Your task to perform on an android device: What's the weather going to be tomorrow? Image 0: 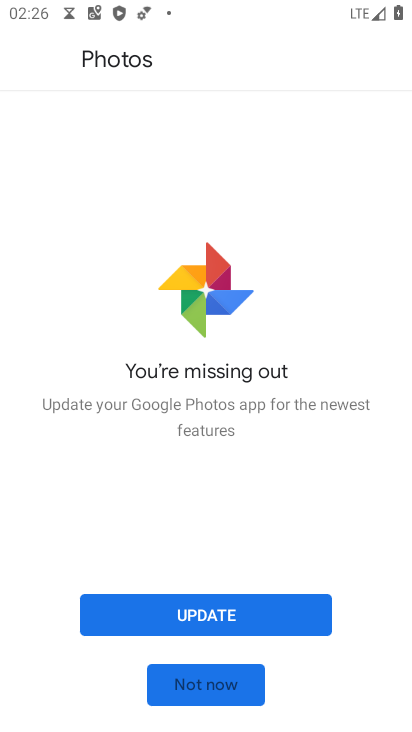
Step 0: press home button
Your task to perform on an android device: What's the weather going to be tomorrow? Image 1: 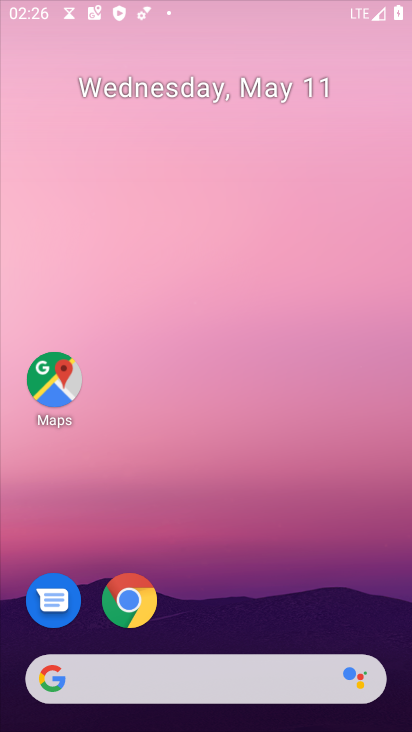
Step 1: drag from (12, 524) to (70, 330)
Your task to perform on an android device: What's the weather going to be tomorrow? Image 2: 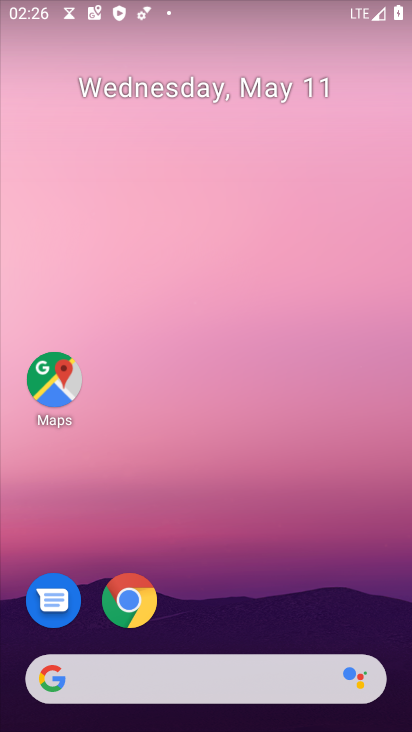
Step 2: drag from (237, 563) to (256, 251)
Your task to perform on an android device: What's the weather going to be tomorrow? Image 3: 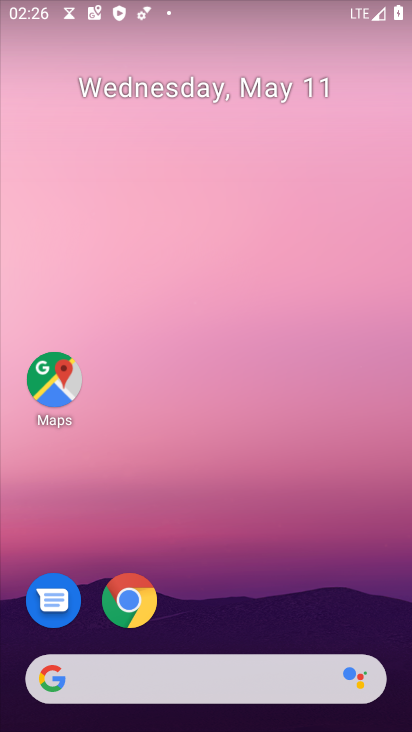
Step 3: drag from (198, 617) to (232, 205)
Your task to perform on an android device: What's the weather going to be tomorrow? Image 4: 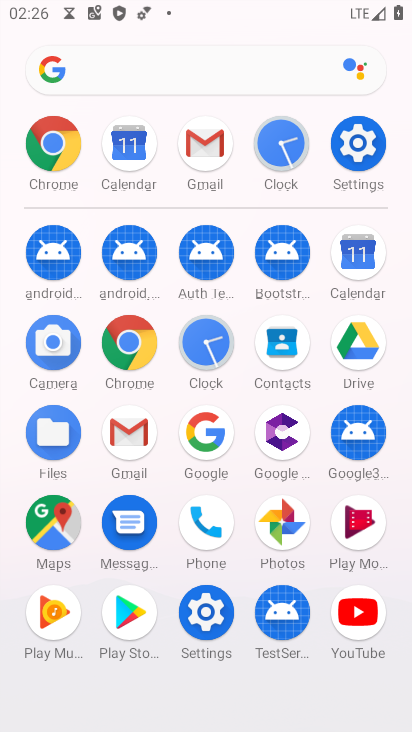
Step 4: click (51, 145)
Your task to perform on an android device: What's the weather going to be tomorrow? Image 5: 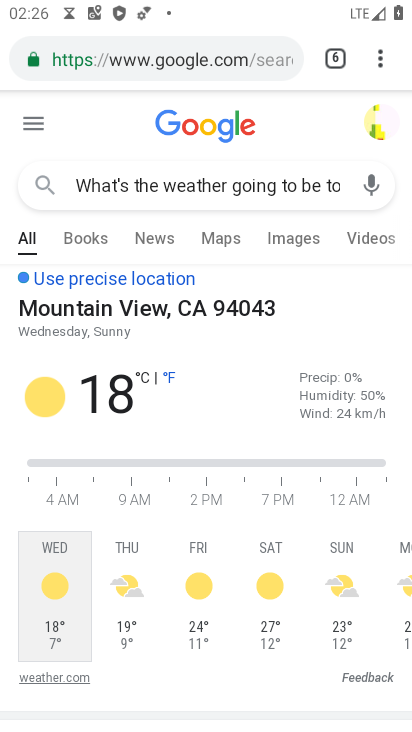
Step 5: task complete